Your task to perform on an android device: What's the weather? Image 0: 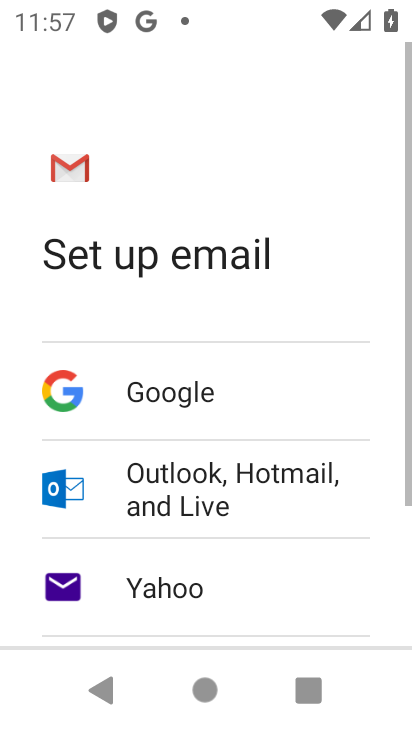
Step 0: press home button
Your task to perform on an android device: What's the weather? Image 1: 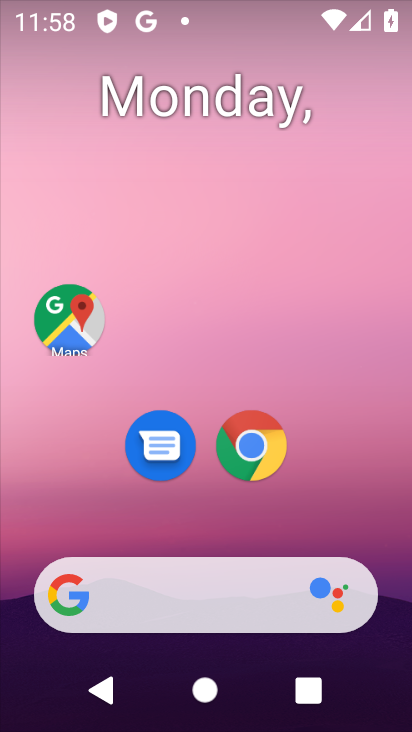
Step 1: drag from (13, 419) to (346, 340)
Your task to perform on an android device: What's the weather? Image 2: 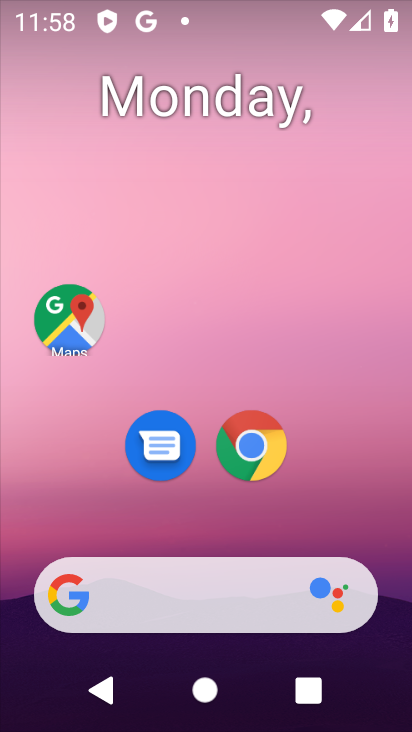
Step 2: drag from (6, 410) to (411, 314)
Your task to perform on an android device: What's the weather? Image 3: 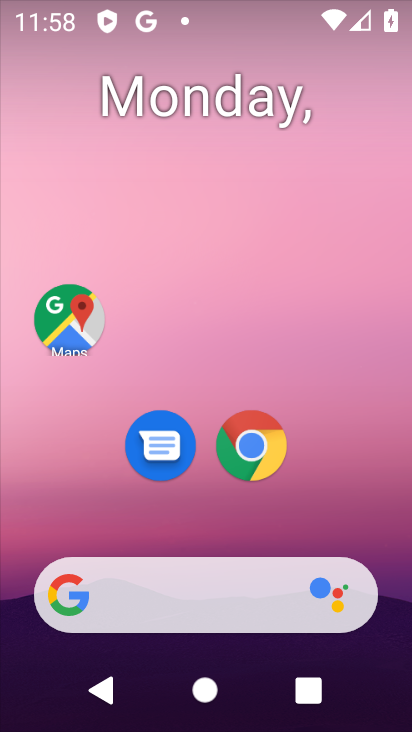
Step 3: drag from (3, 219) to (400, 185)
Your task to perform on an android device: What's the weather? Image 4: 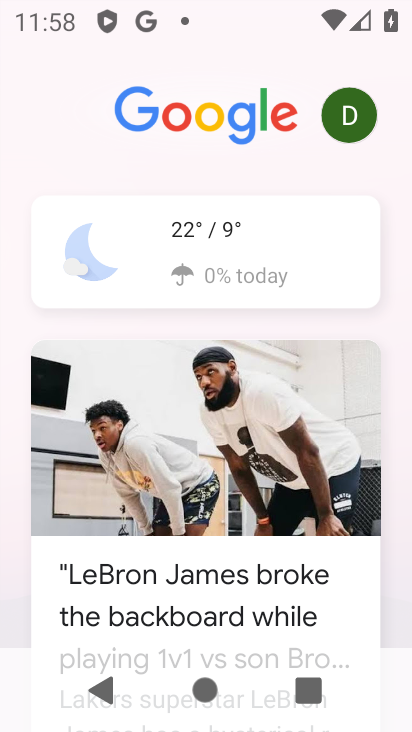
Step 4: click (191, 253)
Your task to perform on an android device: What's the weather? Image 5: 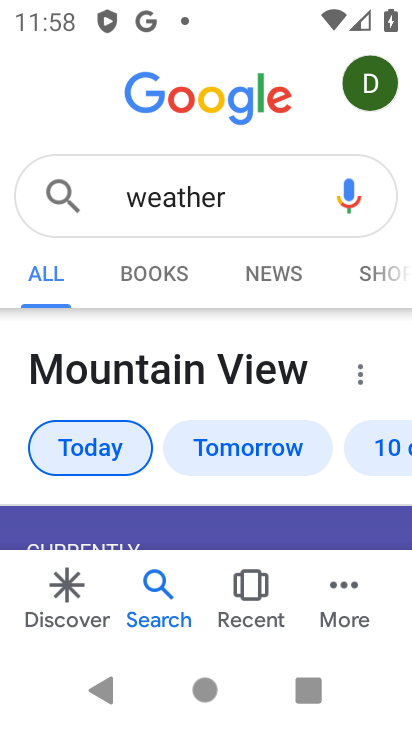
Step 5: task complete